Your task to perform on an android device: Open the Play Movies app and select the watchlist tab. Image 0: 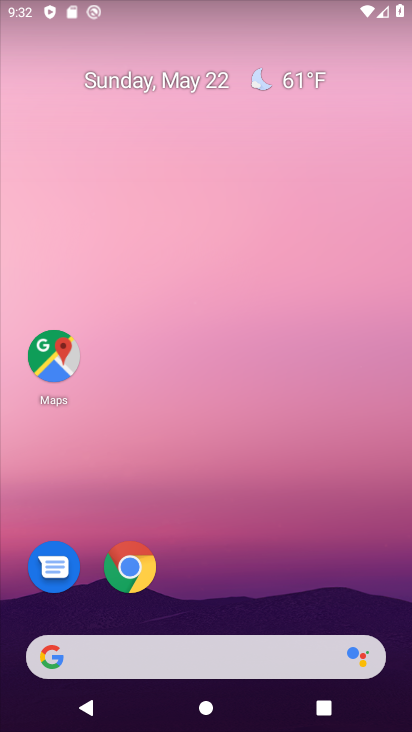
Step 0: drag from (237, 631) to (193, 59)
Your task to perform on an android device: Open the Play Movies app and select the watchlist tab. Image 1: 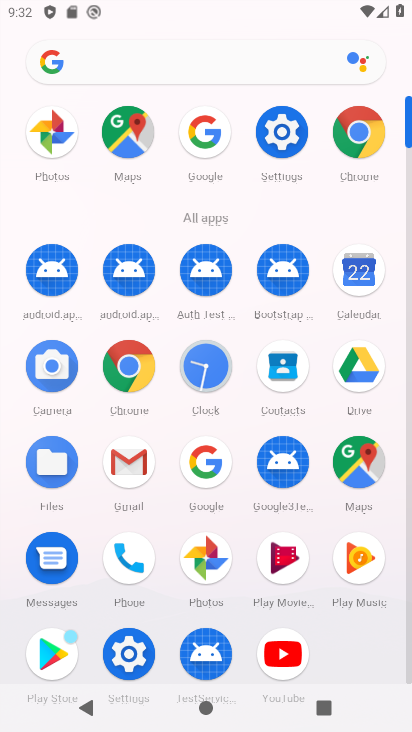
Step 1: click (287, 568)
Your task to perform on an android device: Open the Play Movies app and select the watchlist tab. Image 2: 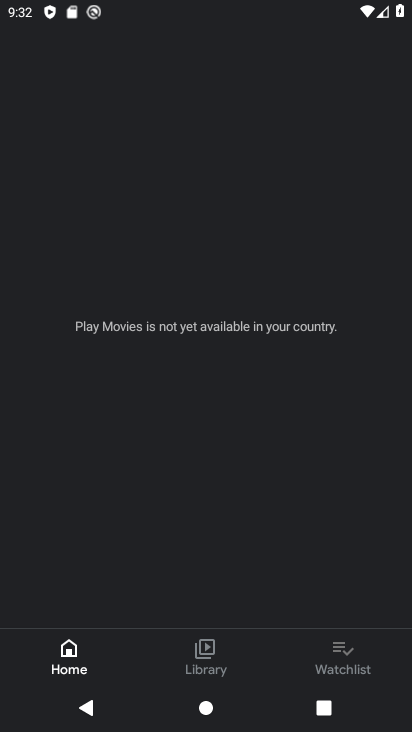
Step 2: click (329, 649)
Your task to perform on an android device: Open the Play Movies app and select the watchlist tab. Image 3: 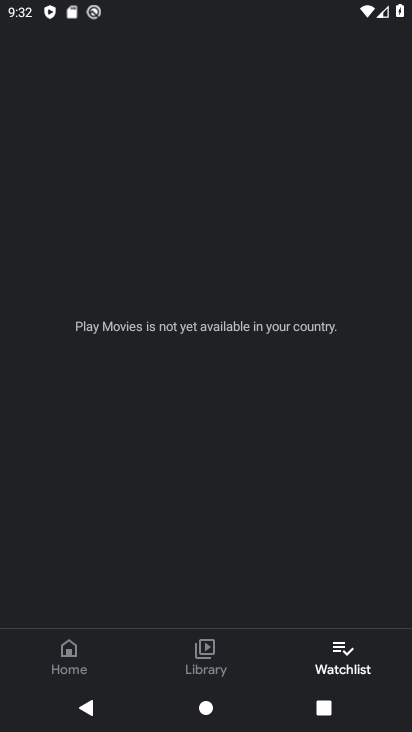
Step 3: task complete